Your task to perform on an android device: toggle notification dots Image 0: 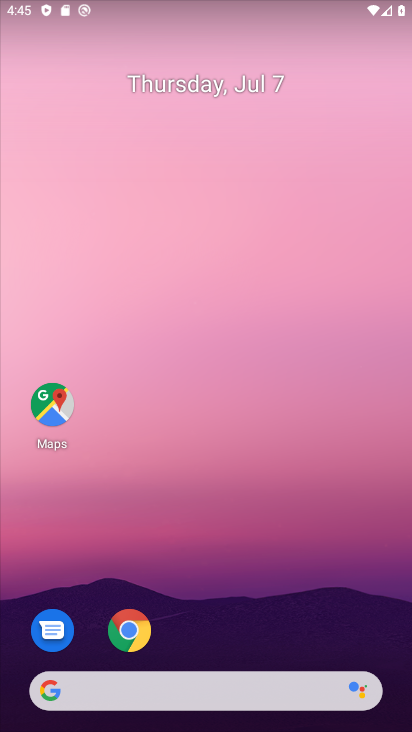
Step 0: drag from (259, 535) to (164, 245)
Your task to perform on an android device: toggle notification dots Image 1: 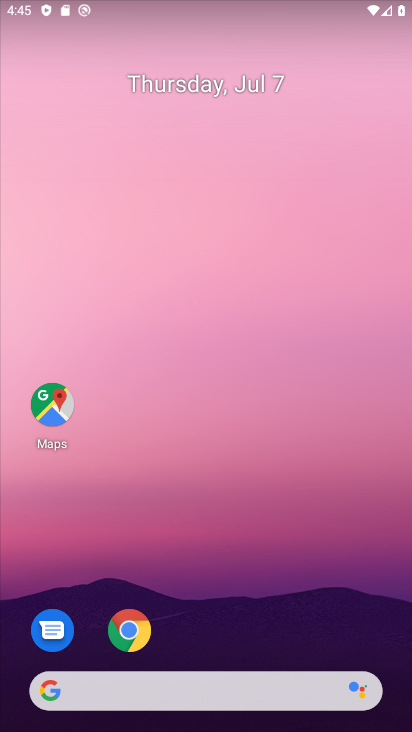
Step 1: drag from (223, 586) to (179, 18)
Your task to perform on an android device: toggle notification dots Image 2: 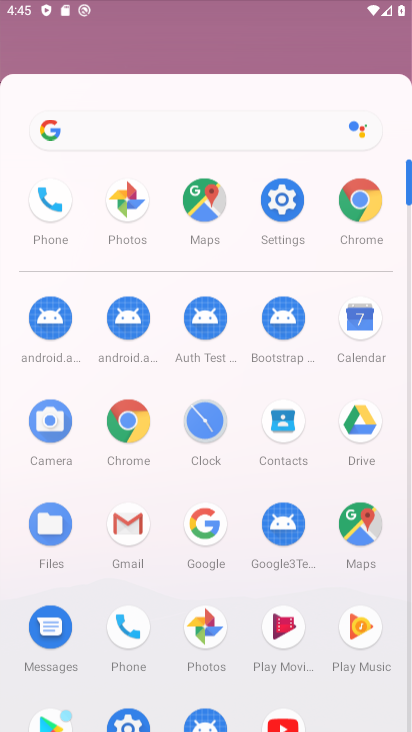
Step 2: drag from (258, 417) to (245, 241)
Your task to perform on an android device: toggle notification dots Image 3: 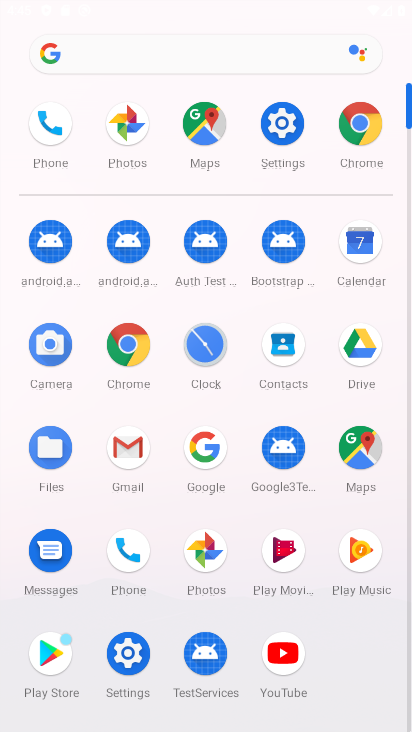
Step 3: click (263, 128)
Your task to perform on an android device: toggle notification dots Image 4: 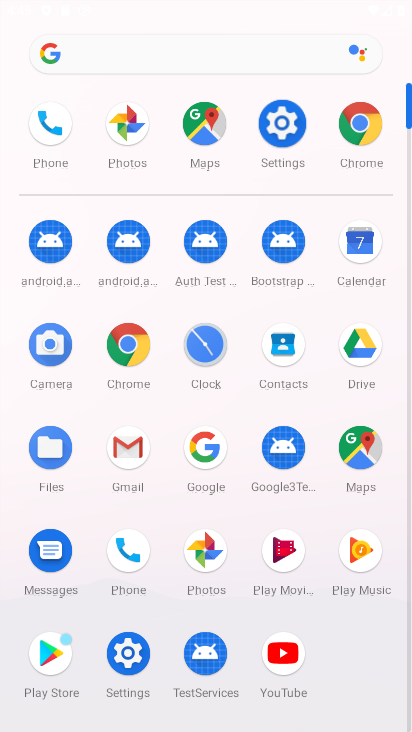
Step 4: click (266, 128)
Your task to perform on an android device: toggle notification dots Image 5: 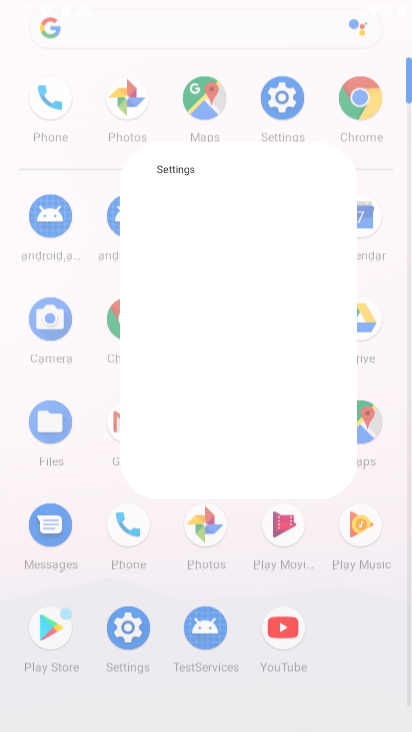
Step 5: click (267, 128)
Your task to perform on an android device: toggle notification dots Image 6: 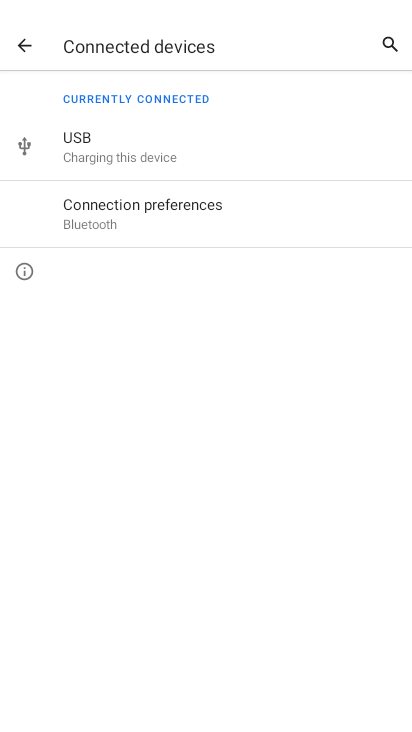
Step 6: click (16, 40)
Your task to perform on an android device: toggle notification dots Image 7: 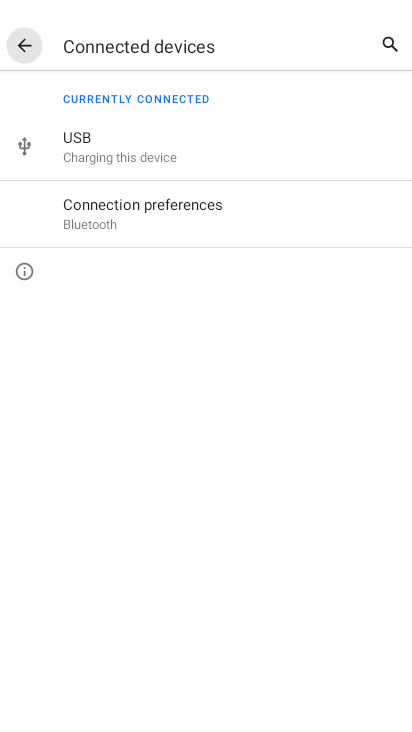
Step 7: click (20, 36)
Your task to perform on an android device: toggle notification dots Image 8: 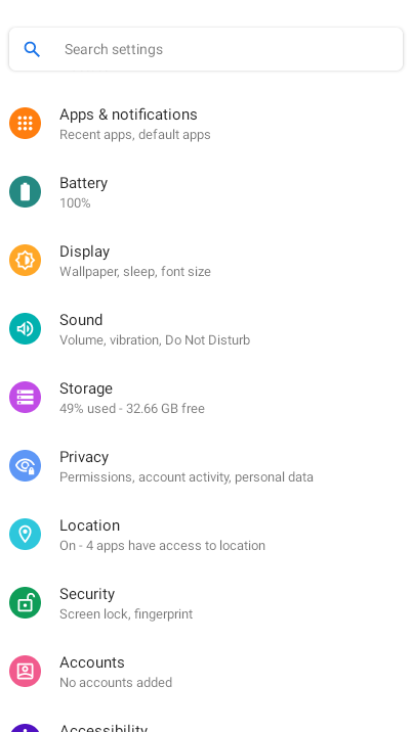
Step 8: click (22, 35)
Your task to perform on an android device: toggle notification dots Image 9: 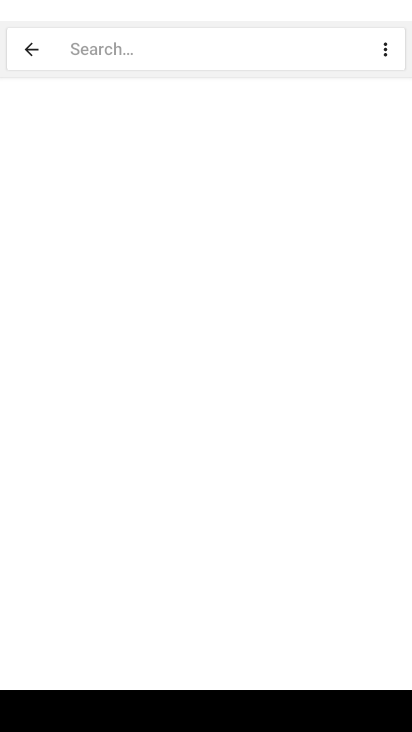
Step 9: click (136, 170)
Your task to perform on an android device: toggle notification dots Image 10: 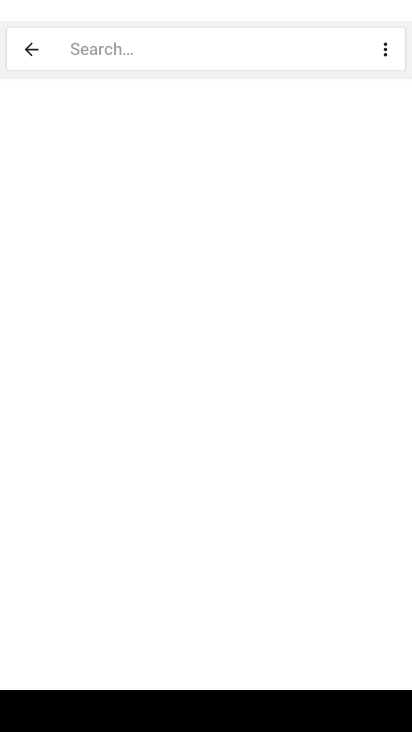
Step 10: click (22, 44)
Your task to perform on an android device: toggle notification dots Image 11: 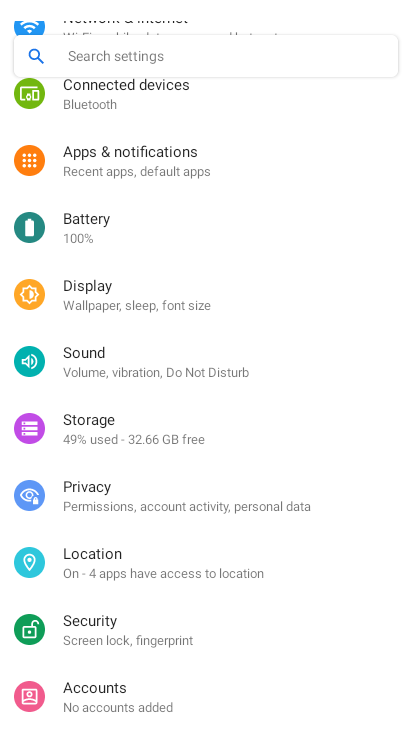
Step 11: click (139, 169)
Your task to perform on an android device: toggle notification dots Image 12: 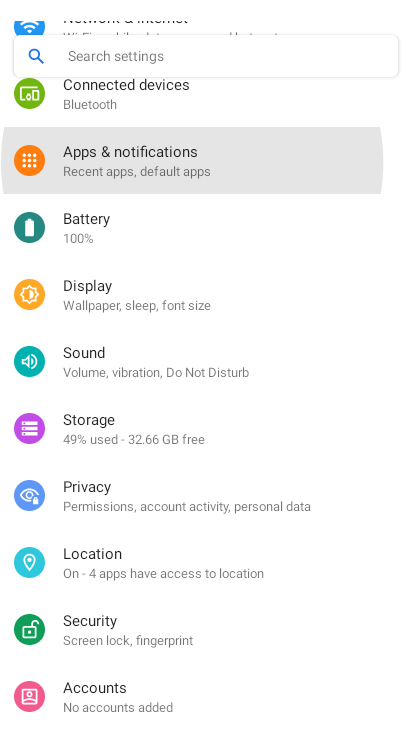
Step 12: click (143, 166)
Your task to perform on an android device: toggle notification dots Image 13: 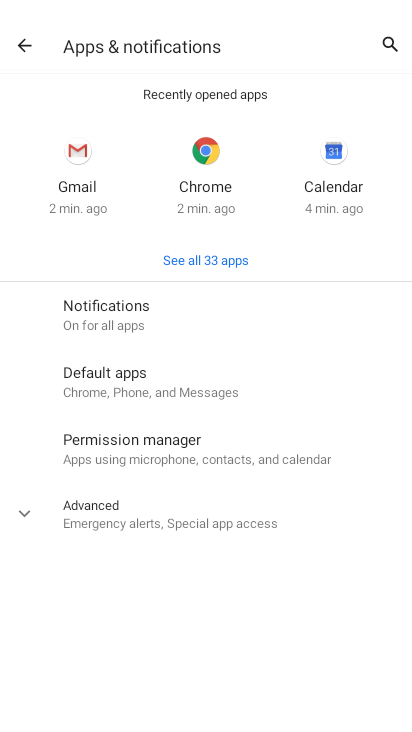
Step 13: click (103, 310)
Your task to perform on an android device: toggle notification dots Image 14: 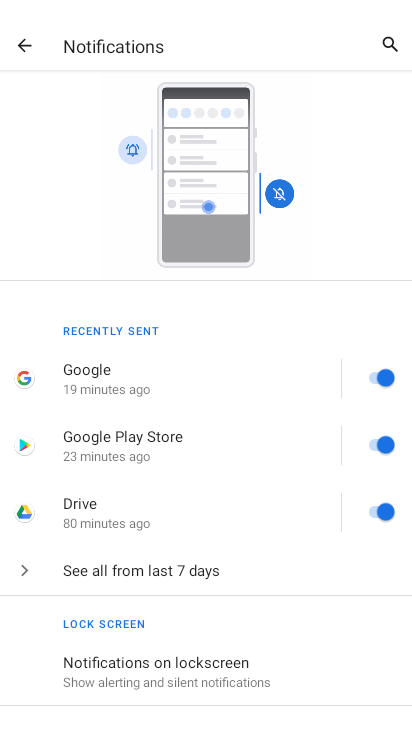
Step 14: drag from (188, 569) to (168, 323)
Your task to perform on an android device: toggle notification dots Image 15: 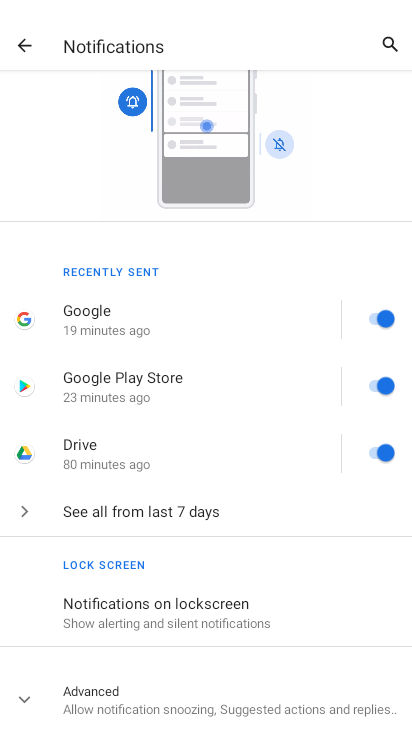
Step 15: drag from (215, 518) to (175, 212)
Your task to perform on an android device: toggle notification dots Image 16: 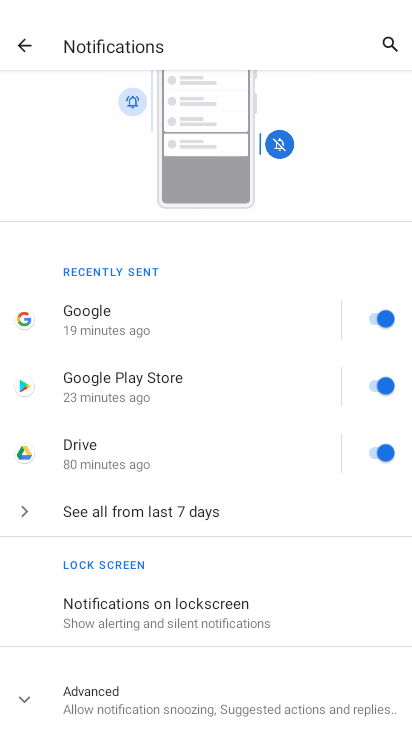
Step 16: click (110, 695)
Your task to perform on an android device: toggle notification dots Image 17: 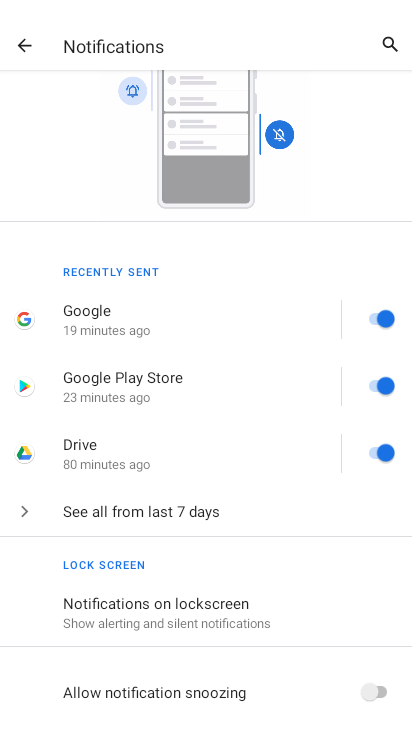
Step 17: drag from (217, 614) to (244, 222)
Your task to perform on an android device: toggle notification dots Image 18: 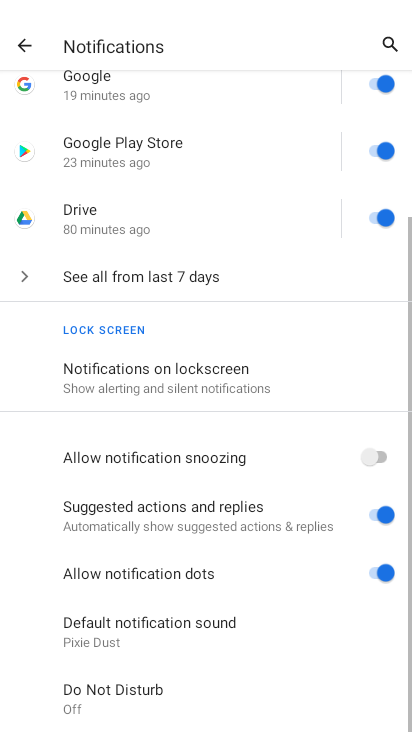
Step 18: drag from (193, 471) to (192, 168)
Your task to perform on an android device: toggle notification dots Image 19: 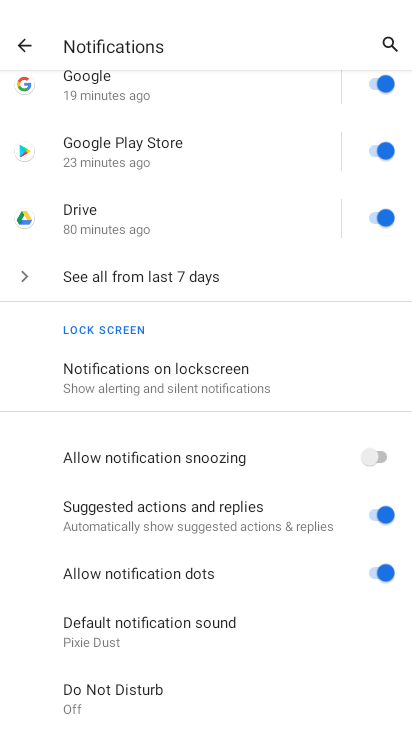
Step 19: click (179, 579)
Your task to perform on an android device: toggle notification dots Image 20: 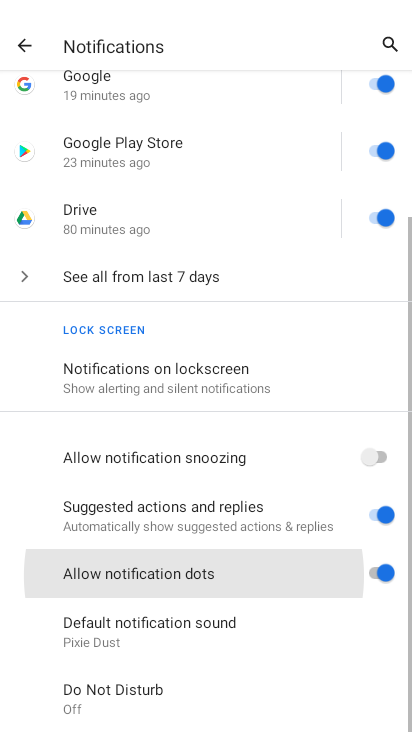
Step 20: click (179, 579)
Your task to perform on an android device: toggle notification dots Image 21: 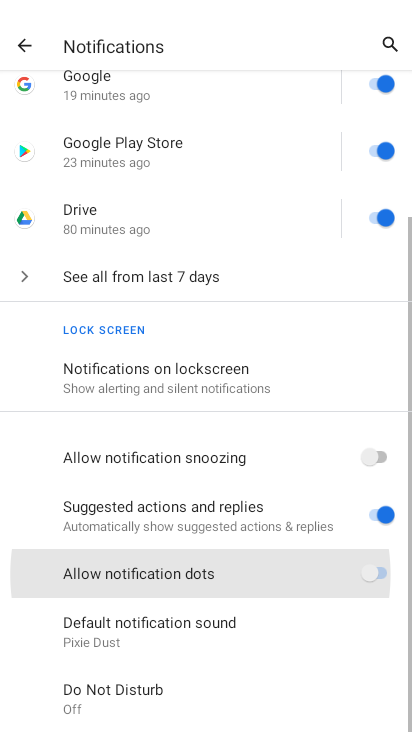
Step 21: click (180, 579)
Your task to perform on an android device: toggle notification dots Image 22: 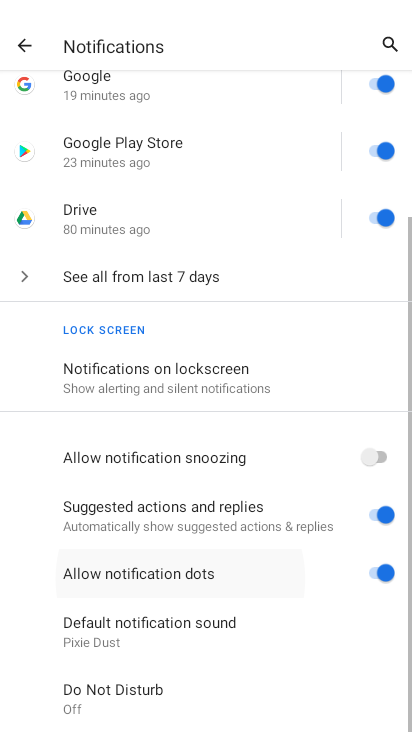
Step 22: click (182, 579)
Your task to perform on an android device: toggle notification dots Image 23: 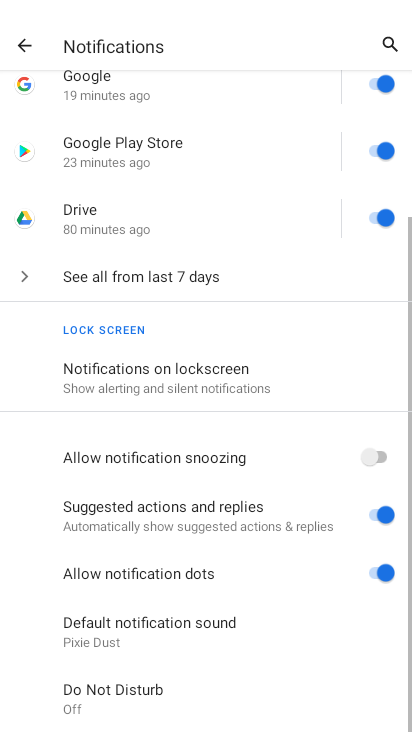
Step 23: click (183, 579)
Your task to perform on an android device: toggle notification dots Image 24: 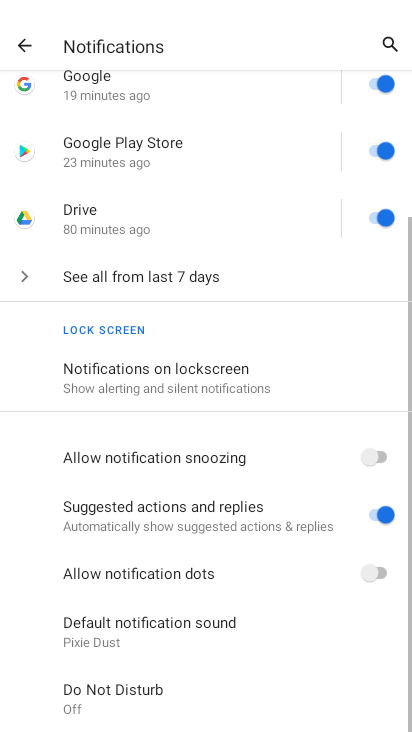
Step 24: click (183, 579)
Your task to perform on an android device: toggle notification dots Image 25: 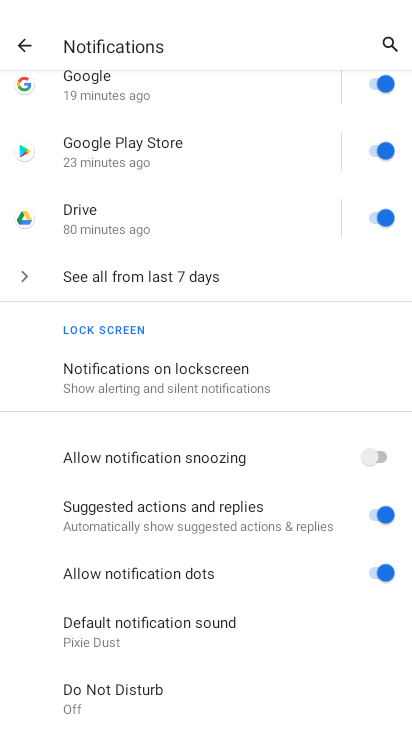
Step 25: click (377, 576)
Your task to perform on an android device: toggle notification dots Image 26: 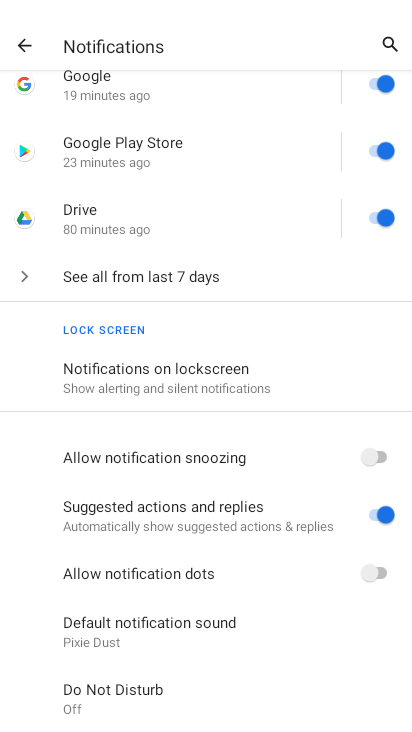
Step 26: task complete